Your task to perform on an android device: Show me productivity apps on the Play Store Image 0: 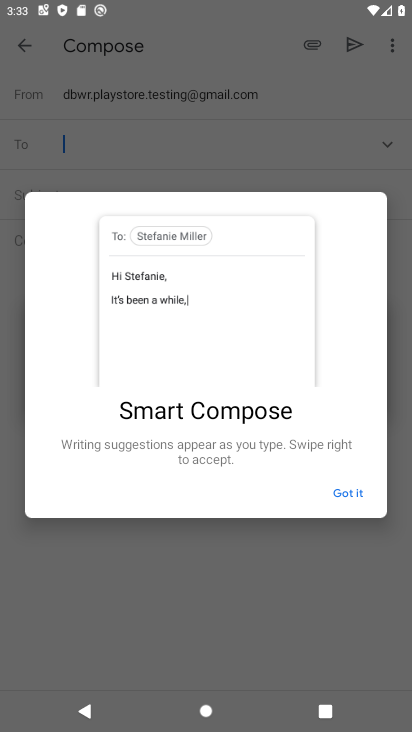
Step 0: press home button
Your task to perform on an android device: Show me productivity apps on the Play Store Image 1: 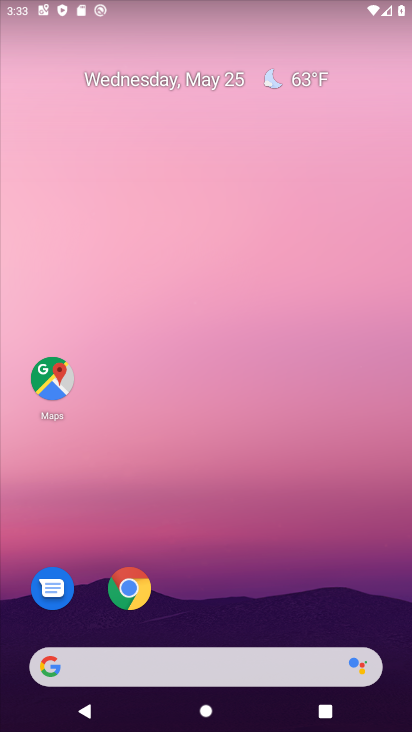
Step 1: drag from (227, 628) to (205, 176)
Your task to perform on an android device: Show me productivity apps on the Play Store Image 2: 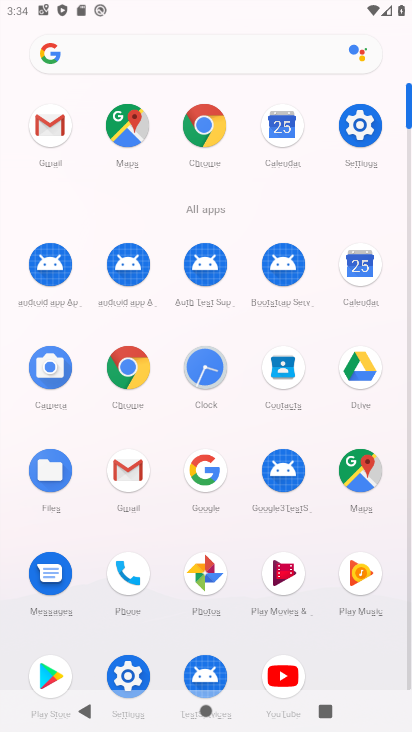
Step 2: click (58, 676)
Your task to perform on an android device: Show me productivity apps on the Play Store Image 3: 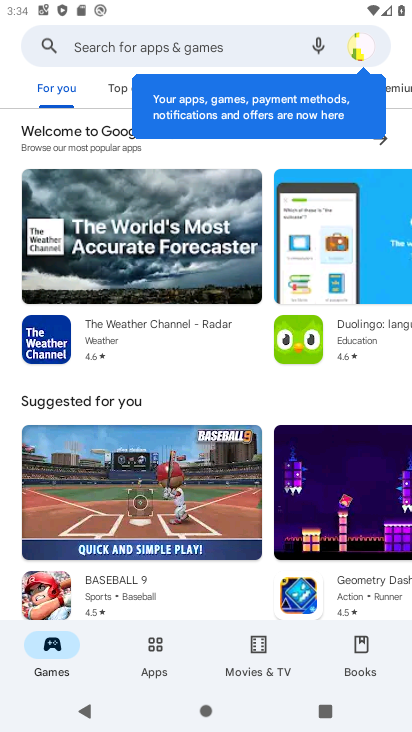
Step 3: click (156, 640)
Your task to perform on an android device: Show me productivity apps on the Play Store Image 4: 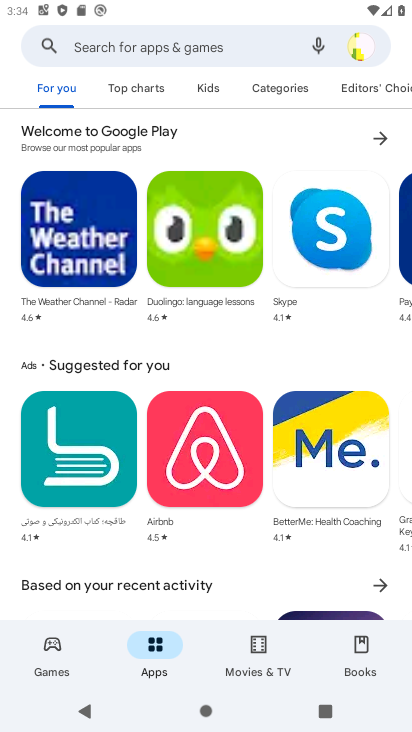
Step 4: click (287, 91)
Your task to perform on an android device: Show me productivity apps on the Play Store Image 5: 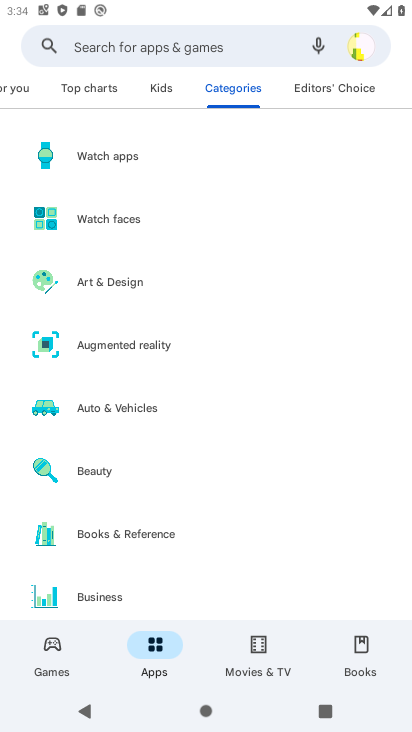
Step 5: drag from (165, 581) to (119, 173)
Your task to perform on an android device: Show me productivity apps on the Play Store Image 6: 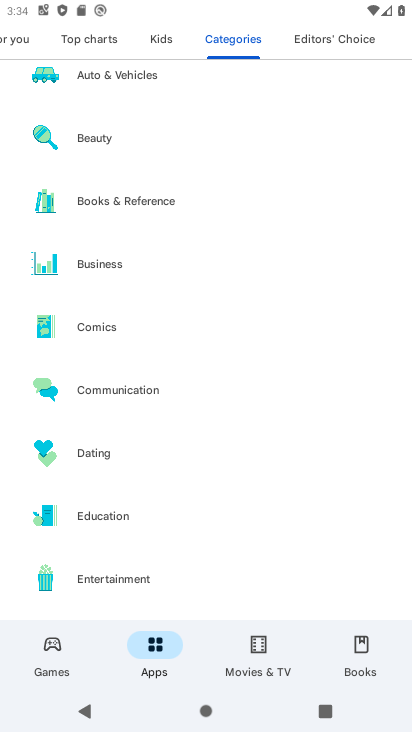
Step 6: drag from (132, 597) to (125, 85)
Your task to perform on an android device: Show me productivity apps on the Play Store Image 7: 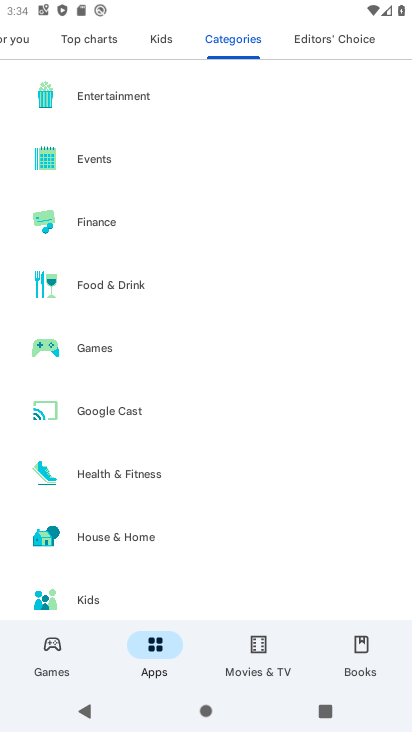
Step 7: drag from (115, 582) to (78, 106)
Your task to perform on an android device: Show me productivity apps on the Play Store Image 8: 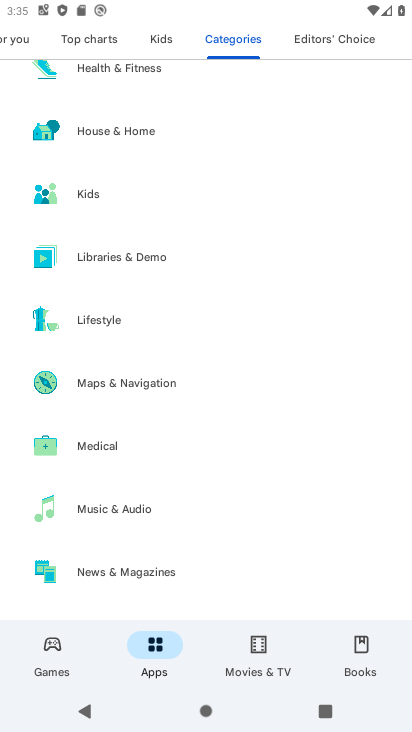
Step 8: drag from (123, 580) to (121, 318)
Your task to perform on an android device: Show me productivity apps on the Play Store Image 9: 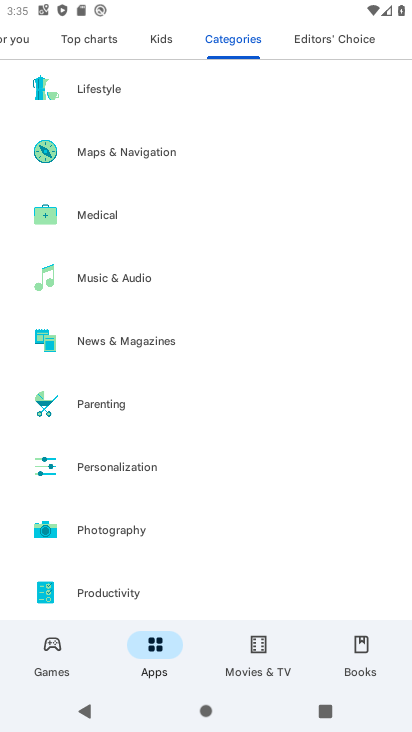
Step 9: click (131, 592)
Your task to perform on an android device: Show me productivity apps on the Play Store Image 10: 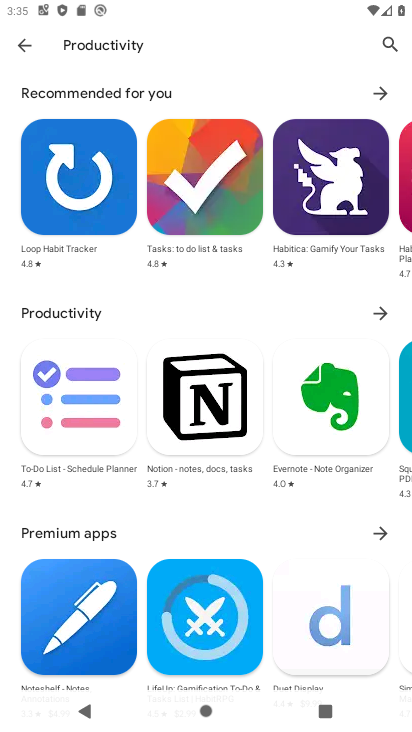
Step 10: task complete